Your task to perform on an android device: Open calendar and show me the fourth week of next month Image 0: 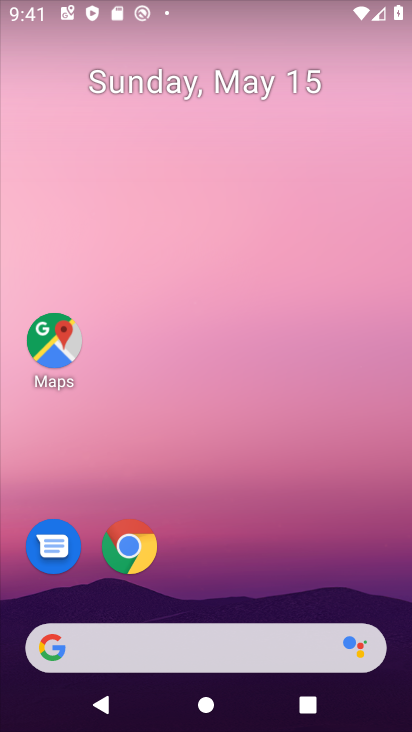
Step 0: click (241, 86)
Your task to perform on an android device: Open calendar and show me the fourth week of next month Image 1: 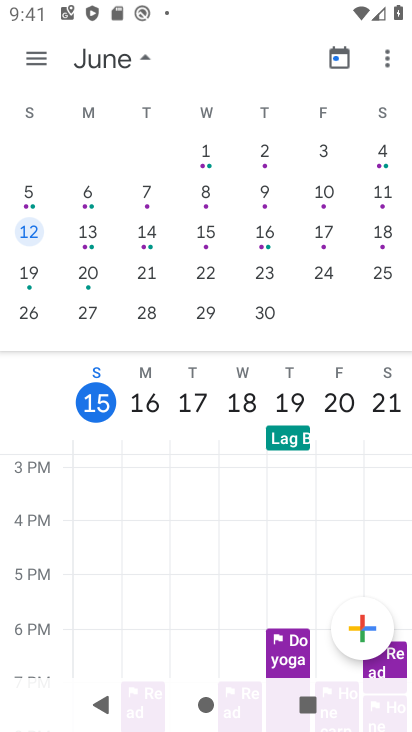
Step 1: drag from (350, 218) to (32, 322)
Your task to perform on an android device: Open calendar and show me the fourth week of next month Image 2: 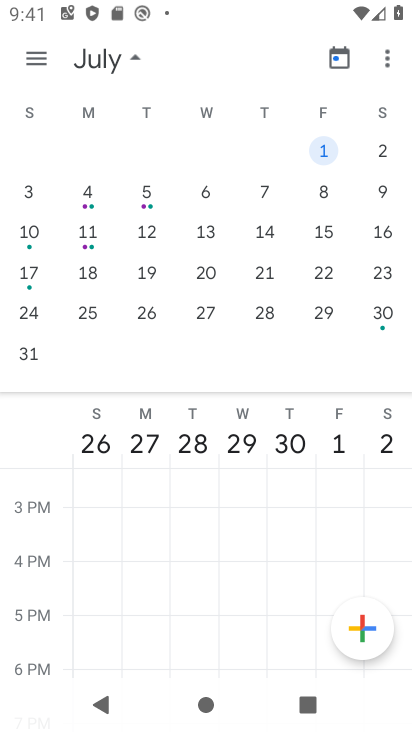
Step 2: click (43, 274)
Your task to perform on an android device: Open calendar and show me the fourth week of next month Image 3: 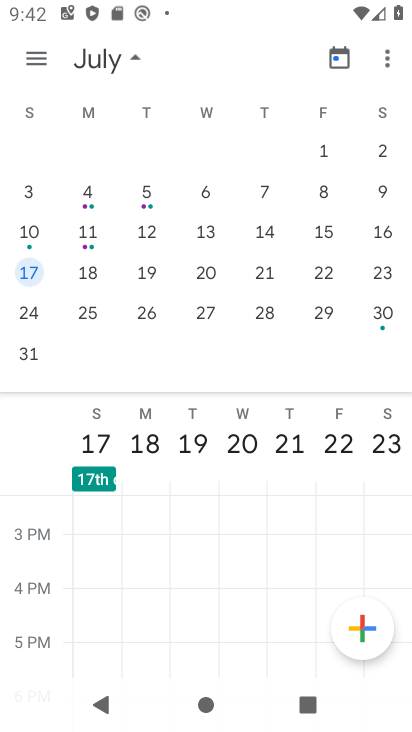
Step 3: drag from (58, 290) to (399, 299)
Your task to perform on an android device: Open calendar and show me the fourth week of next month Image 4: 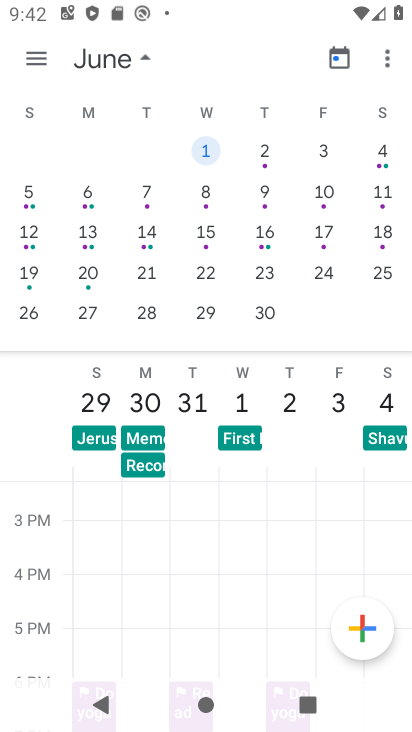
Step 4: click (40, 269)
Your task to perform on an android device: Open calendar and show me the fourth week of next month Image 5: 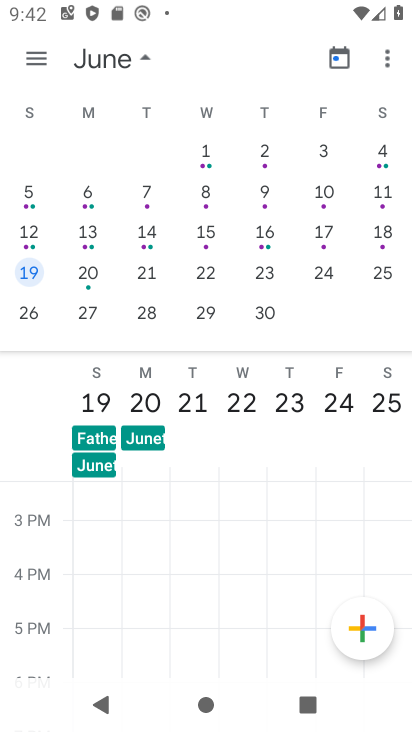
Step 5: task complete